Your task to perform on an android device: open the mobile data screen to see how much data has been used Image 0: 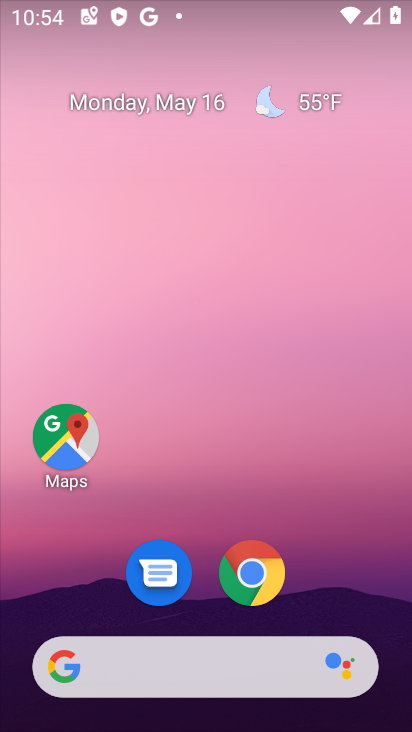
Step 0: drag from (343, 5) to (295, 456)
Your task to perform on an android device: open the mobile data screen to see how much data has been used Image 1: 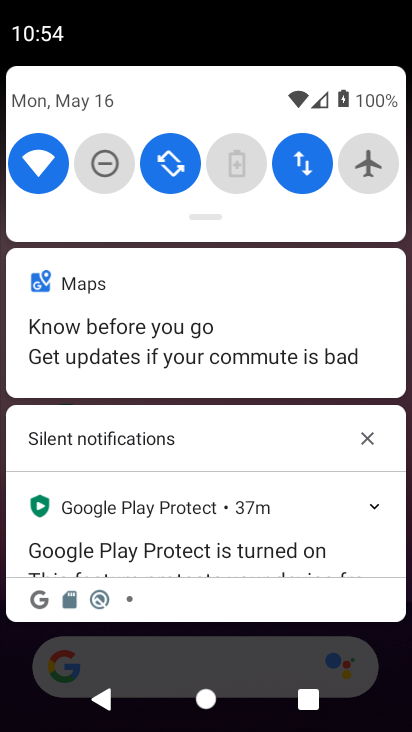
Step 1: click (307, 176)
Your task to perform on an android device: open the mobile data screen to see how much data has been used Image 2: 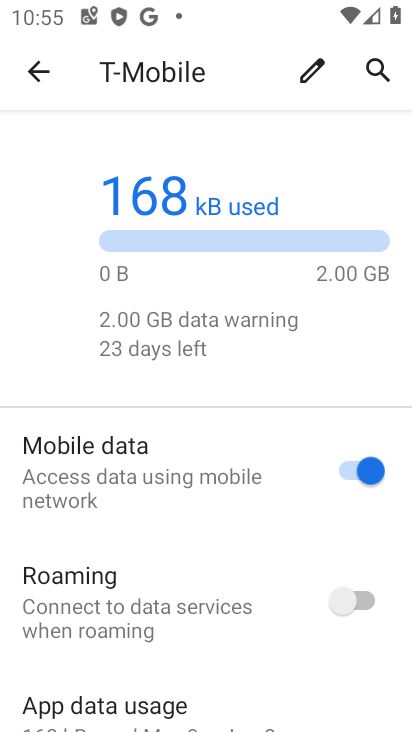
Step 2: task complete